Your task to perform on an android device: Go to Google maps Image 0: 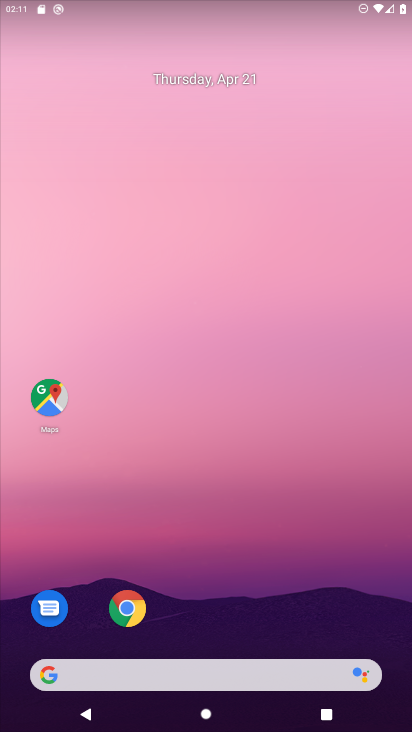
Step 0: drag from (257, 565) to (292, 189)
Your task to perform on an android device: Go to Google maps Image 1: 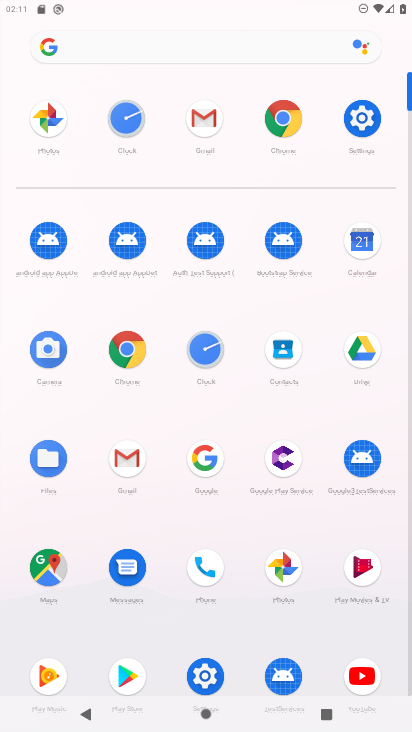
Step 1: click (55, 561)
Your task to perform on an android device: Go to Google maps Image 2: 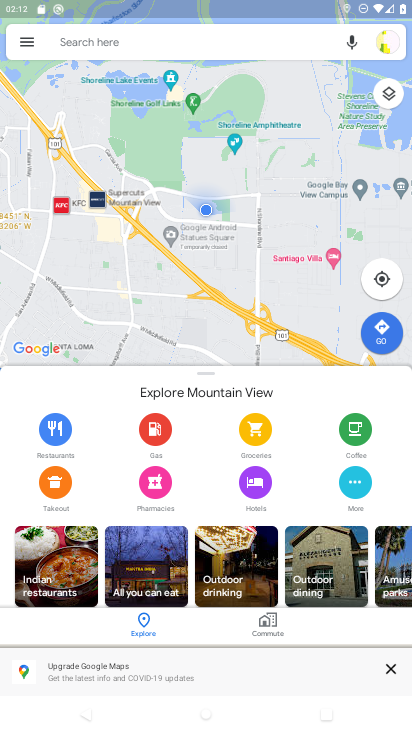
Step 2: task complete